Your task to perform on an android device: see creations saved in the google photos Image 0: 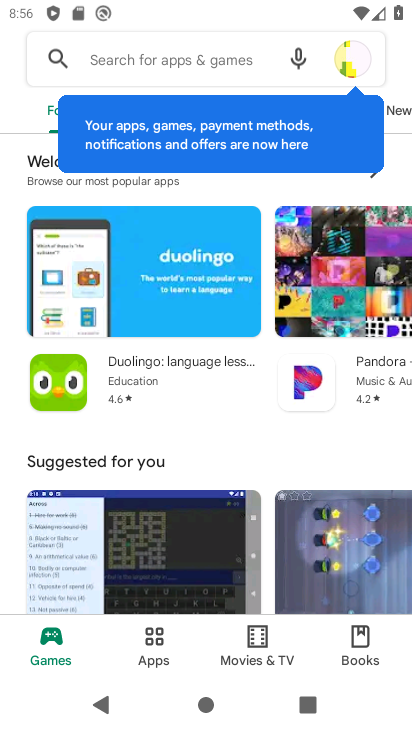
Step 0: press home button
Your task to perform on an android device: see creations saved in the google photos Image 1: 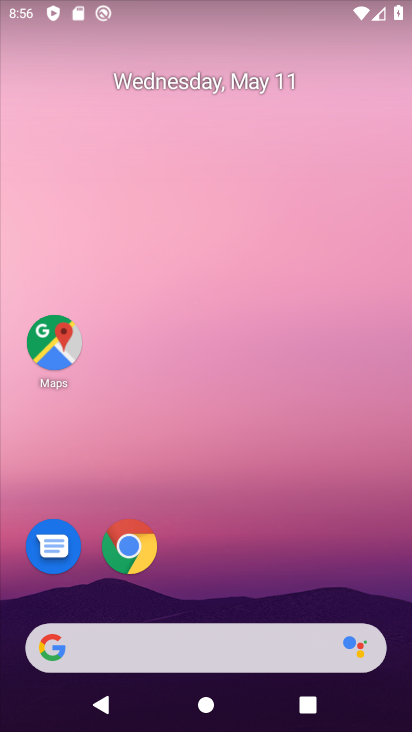
Step 1: drag from (363, 551) to (238, 158)
Your task to perform on an android device: see creations saved in the google photos Image 2: 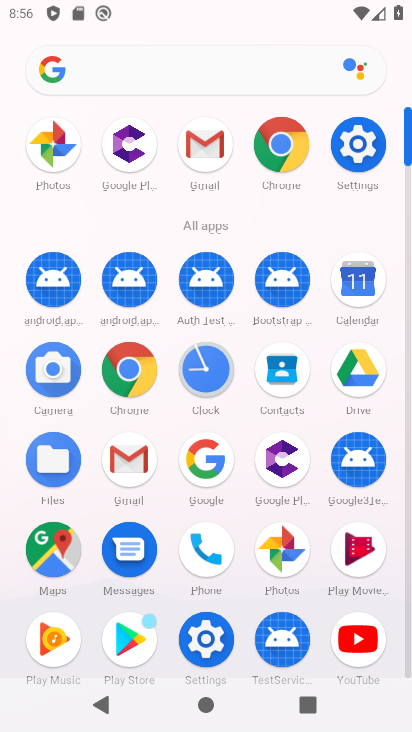
Step 2: click (62, 151)
Your task to perform on an android device: see creations saved in the google photos Image 3: 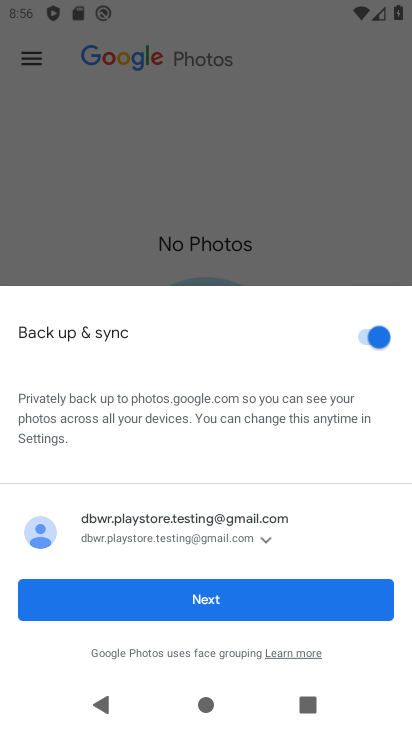
Step 3: click (267, 603)
Your task to perform on an android device: see creations saved in the google photos Image 4: 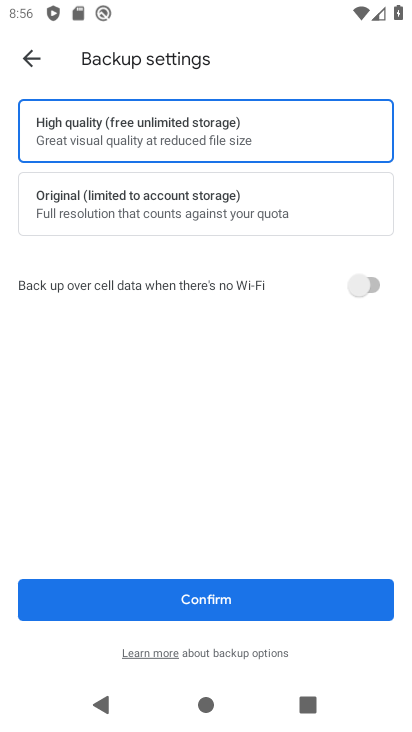
Step 4: click (275, 603)
Your task to perform on an android device: see creations saved in the google photos Image 5: 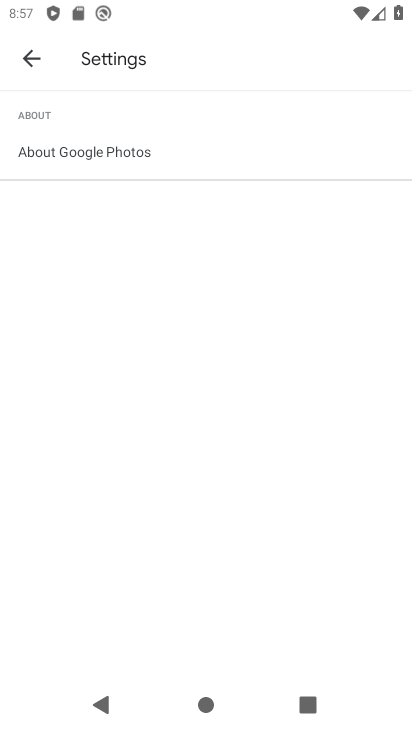
Step 5: click (37, 62)
Your task to perform on an android device: see creations saved in the google photos Image 6: 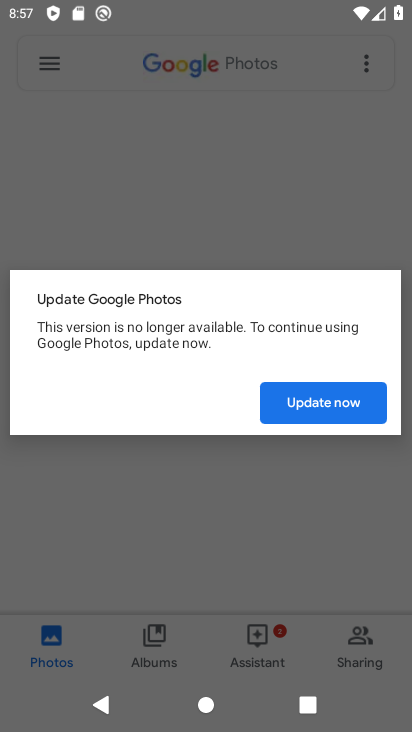
Step 6: click (313, 414)
Your task to perform on an android device: see creations saved in the google photos Image 7: 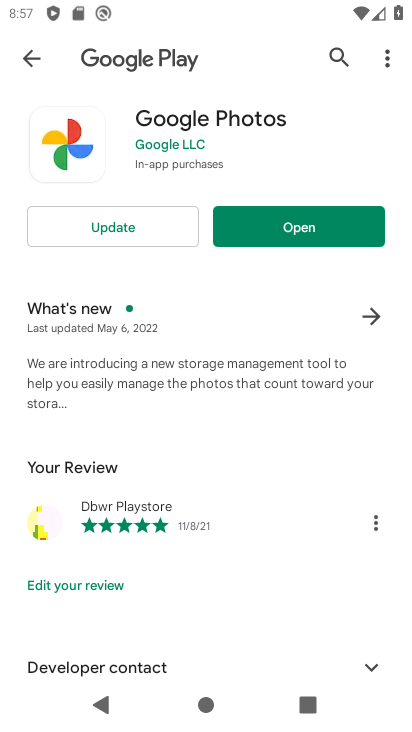
Step 7: click (281, 230)
Your task to perform on an android device: see creations saved in the google photos Image 8: 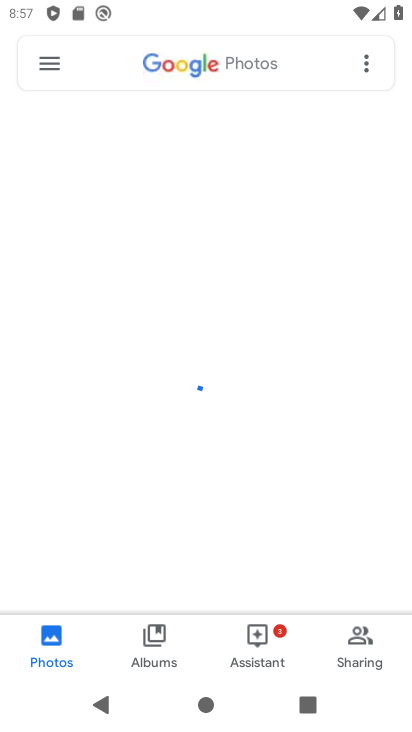
Step 8: click (194, 67)
Your task to perform on an android device: see creations saved in the google photos Image 9: 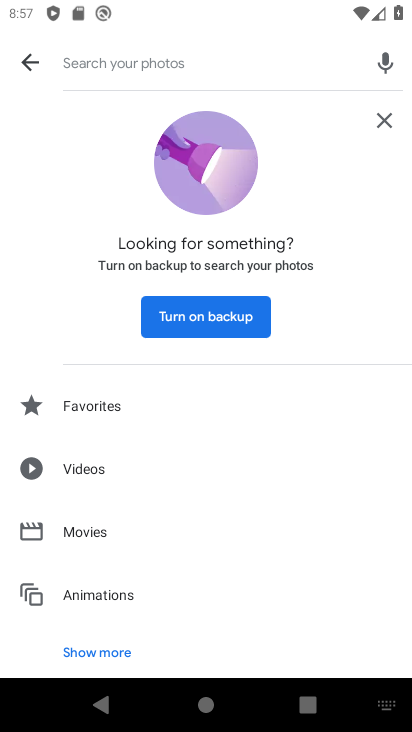
Step 9: click (134, 653)
Your task to perform on an android device: see creations saved in the google photos Image 10: 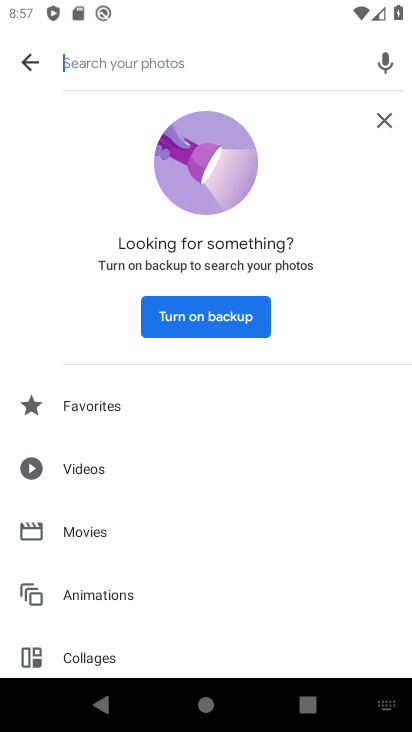
Step 10: drag from (155, 636) to (129, 534)
Your task to perform on an android device: see creations saved in the google photos Image 11: 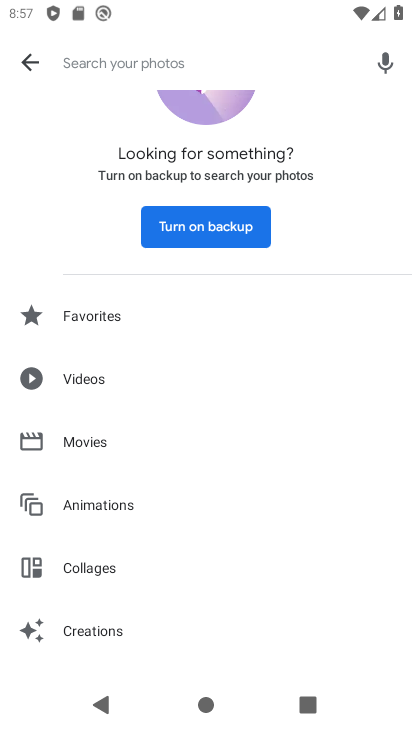
Step 11: click (118, 627)
Your task to perform on an android device: see creations saved in the google photos Image 12: 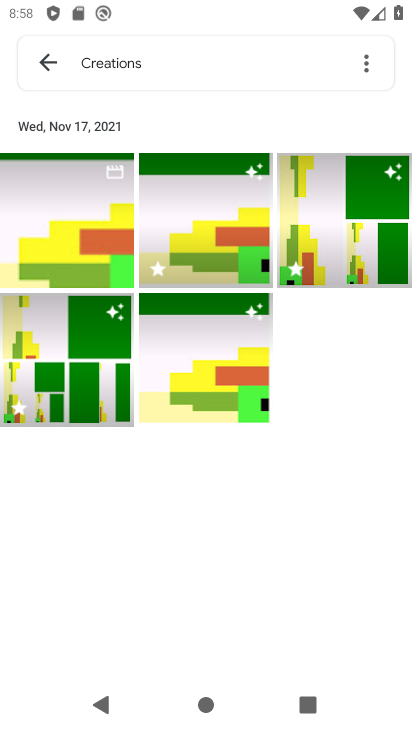
Step 12: task complete